Your task to perform on an android device: turn notification dots on Image 0: 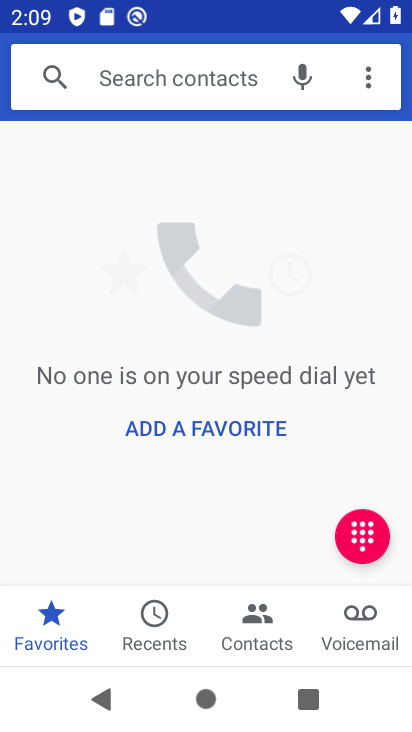
Step 0: press home button
Your task to perform on an android device: turn notification dots on Image 1: 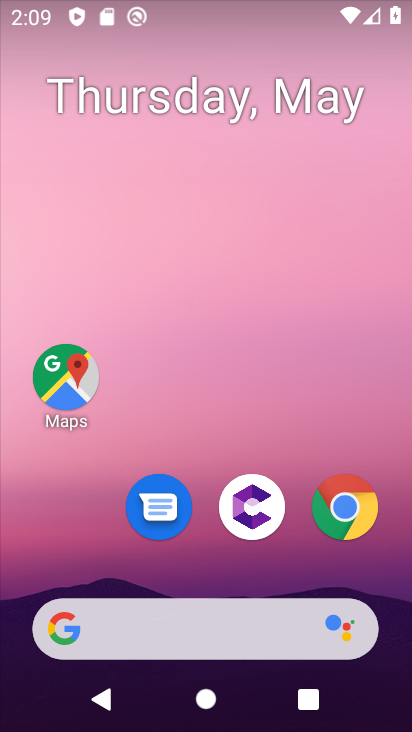
Step 1: drag from (297, 582) to (267, 65)
Your task to perform on an android device: turn notification dots on Image 2: 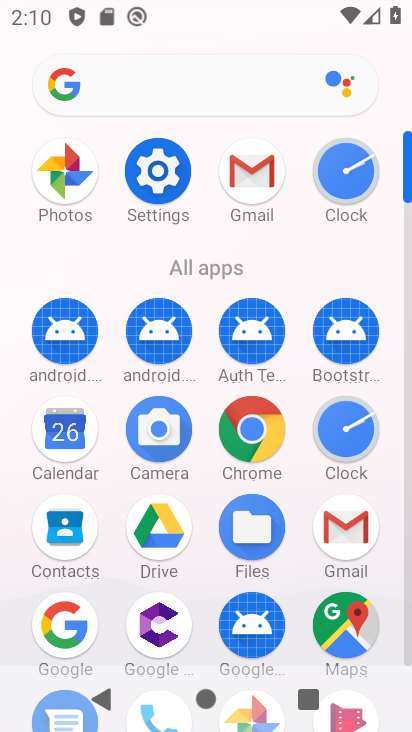
Step 2: click (158, 163)
Your task to perform on an android device: turn notification dots on Image 3: 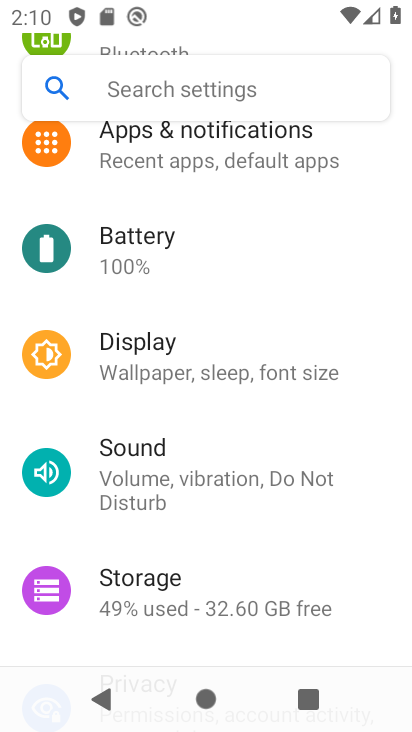
Step 3: click (197, 151)
Your task to perform on an android device: turn notification dots on Image 4: 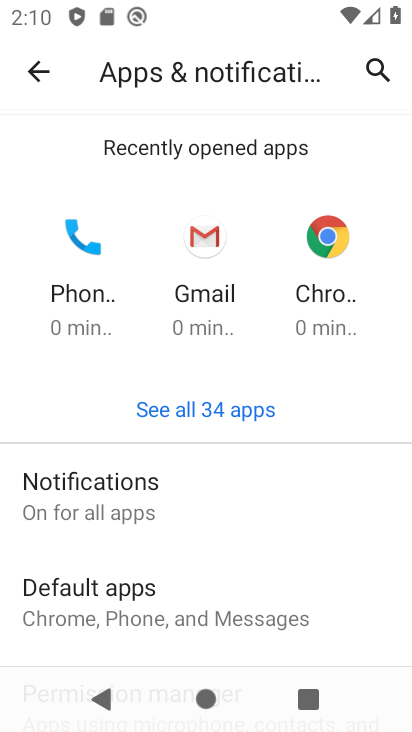
Step 4: click (121, 485)
Your task to perform on an android device: turn notification dots on Image 5: 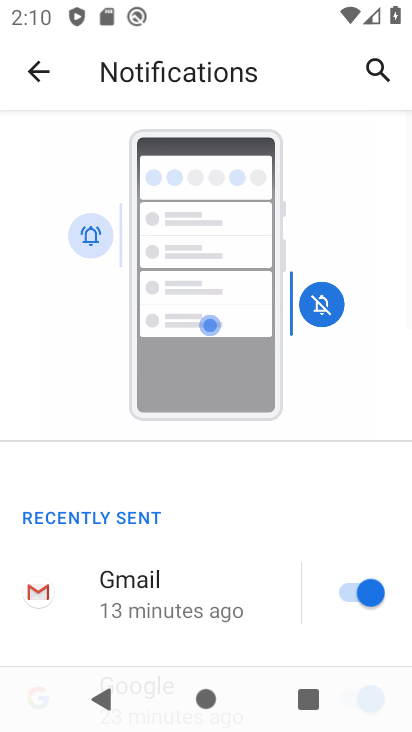
Step 5: drag from (307, 550) to (262, 43)
Your task to perform on an android device: turn notification dots on Image 6: 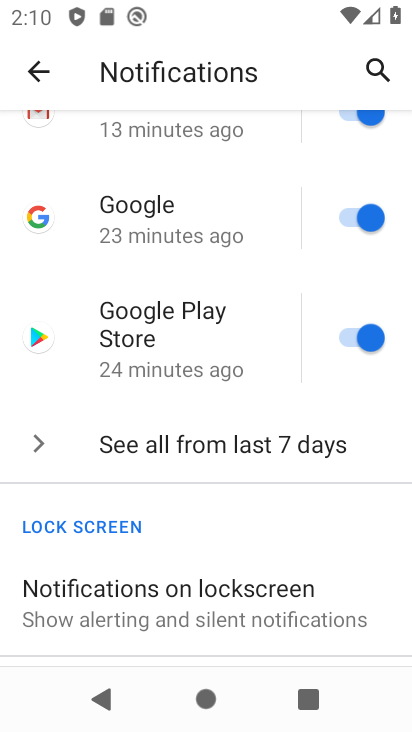
Step 6: drag from (248, 603) to (247, 274)
Your task to perform on an android device: turn notification dots on Image 7: 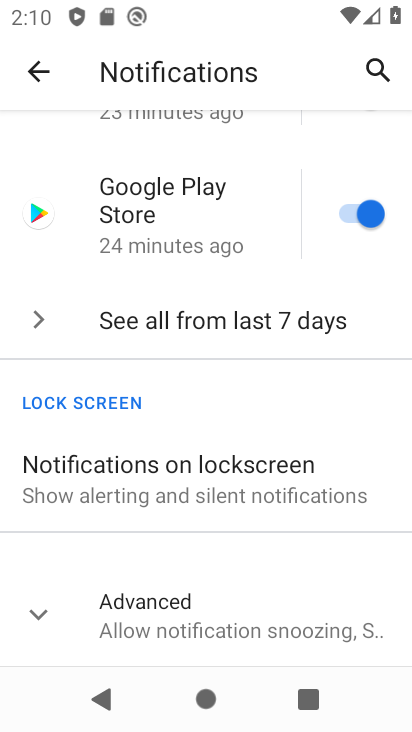
Step 7: click (133, 611)
Your task to perform on an android device: turn notification dots on Image 8: 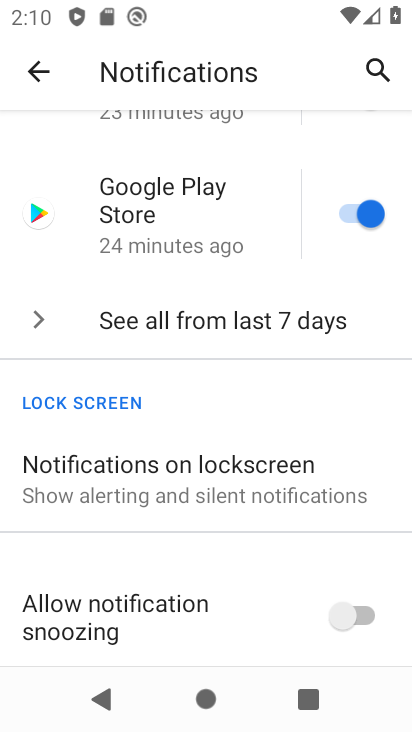
Step 8: task complete